Your task to perform on an android device: Search for Italian restaurants on Maps Image 0: 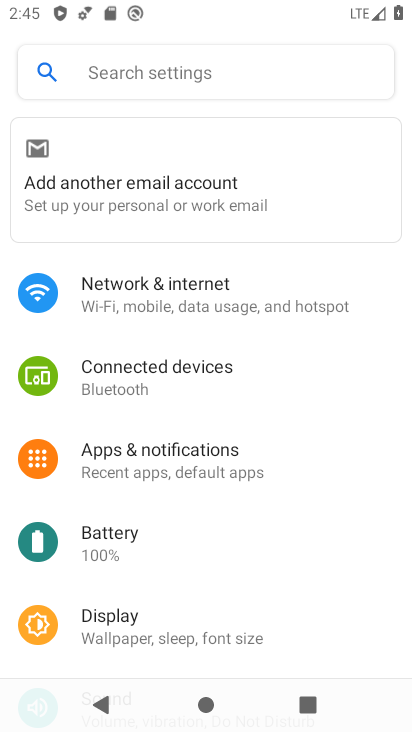
Step 0: press home button
Your task to perform on an android device: Search for Italian restaurants on Maps Image 1: 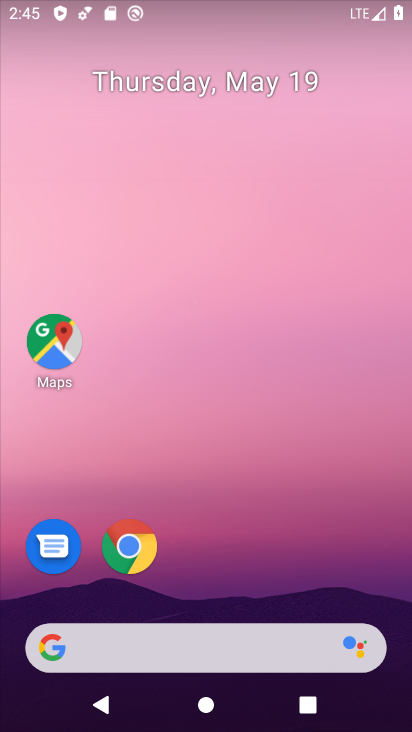
Step 1: click (43, 346)
Your task to perform on an android device: Search for Italian restaurants on Maps Image 2: 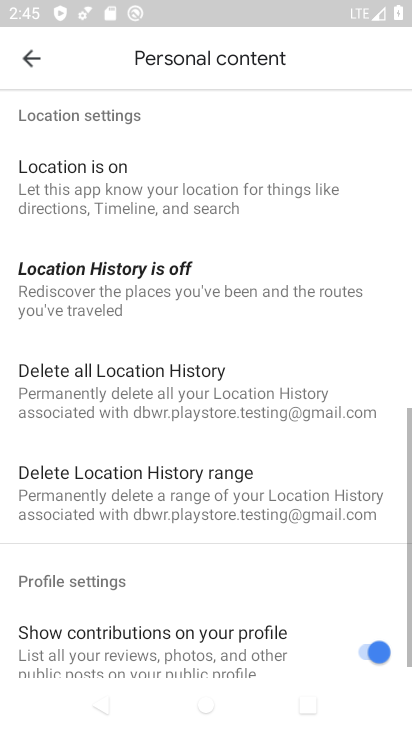
Step 2: click (38, 64)
Your task to perform on an android device: Search for Italian restaurants on Maps Image 3: 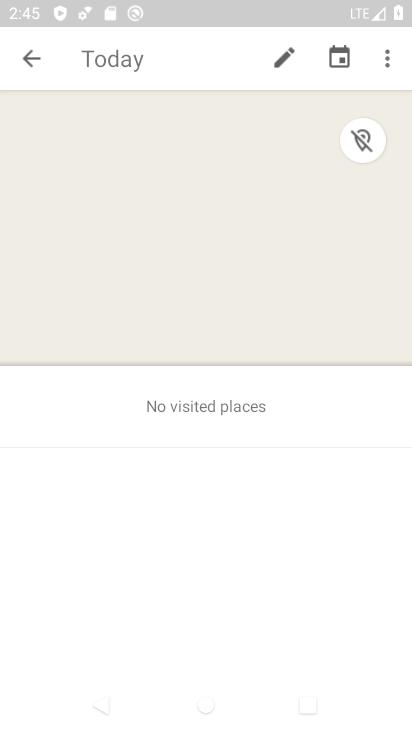
Step 3: click (38, 64)
Your task to perform on an android device: Search for Italian restaurants on Maps Image 4: 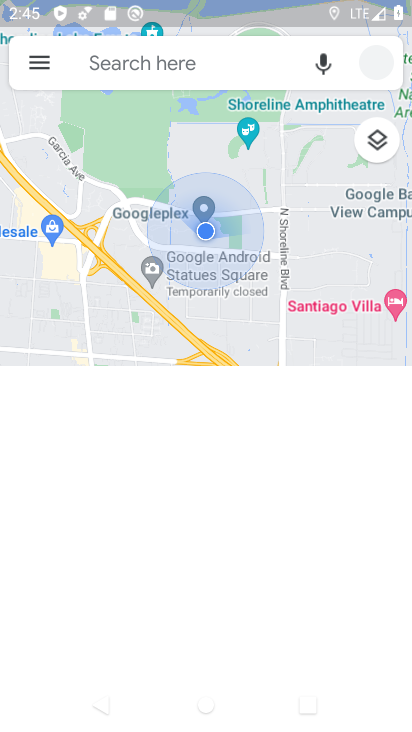
Step 4: click (187, 69)
Your task to perform on an android device: Search for Italian restaurants on Maps Image 5: 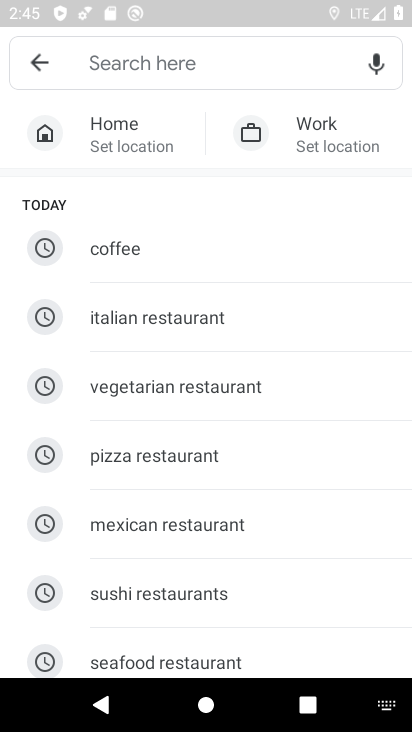
Step 5: click (183, 319)
Your task to perform on an android device: Search for Italian restaurants on Maps Image 6: 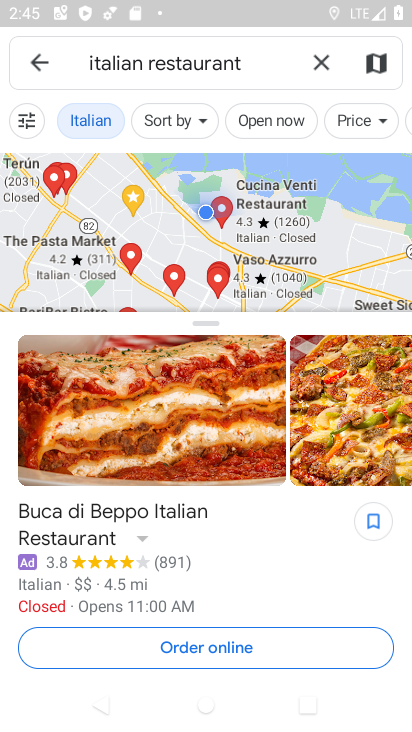
Step 6: task complete